Your task to perform on an android device: turn off location Image 0: 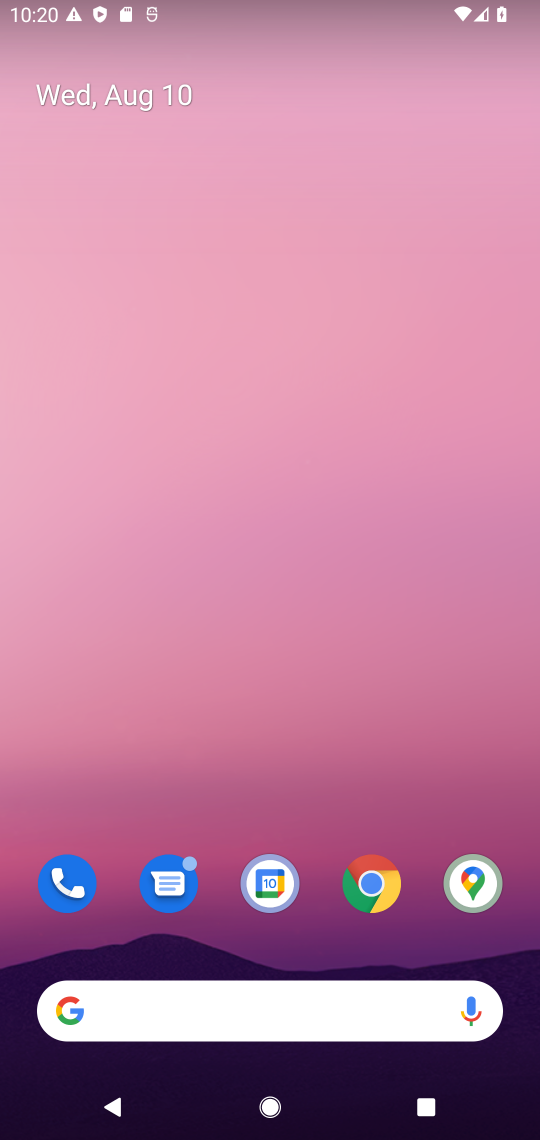
Step 0: drag from (387, 941) to (406, 124)
Your task to perform on an android device: turn off location Image 1: 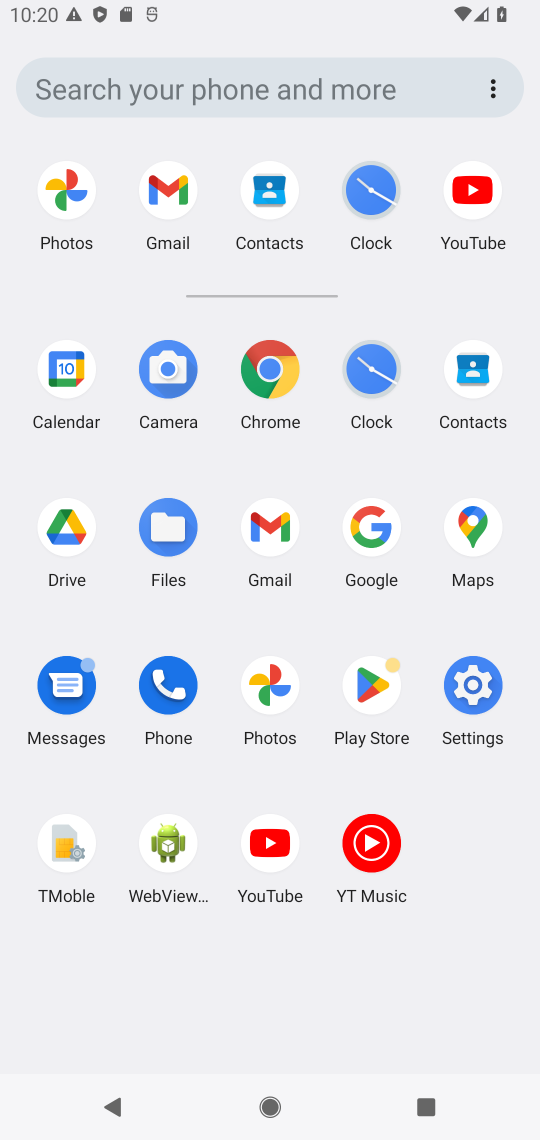
Step 1: click (467, 680)
Your task to perform on an android device: turn off location Image 2: 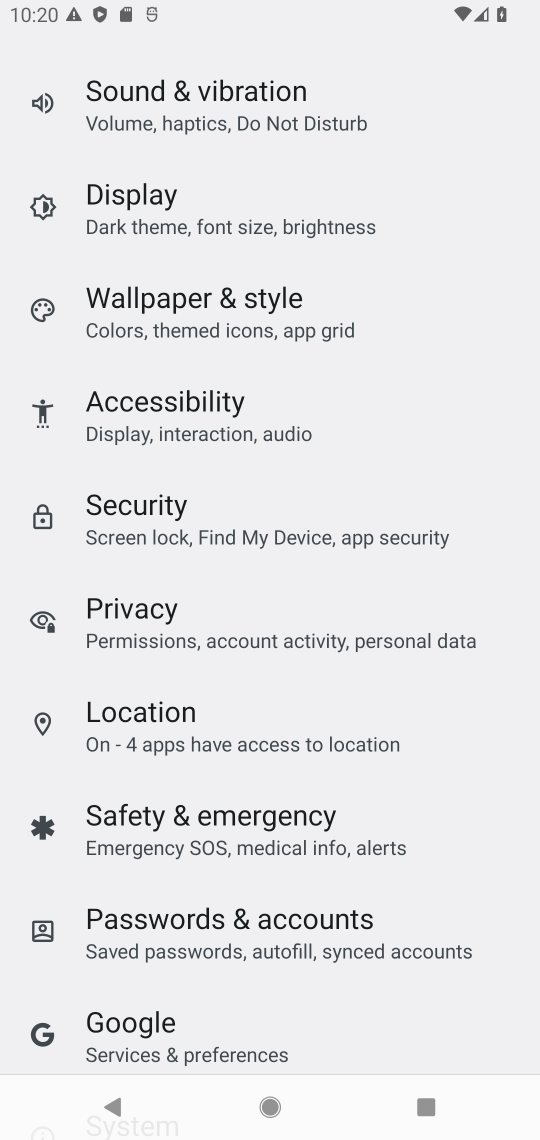
Step 2: drag from (275, 944) to (279, 365)
Your task to perform on an android device: turn off location Image 3: 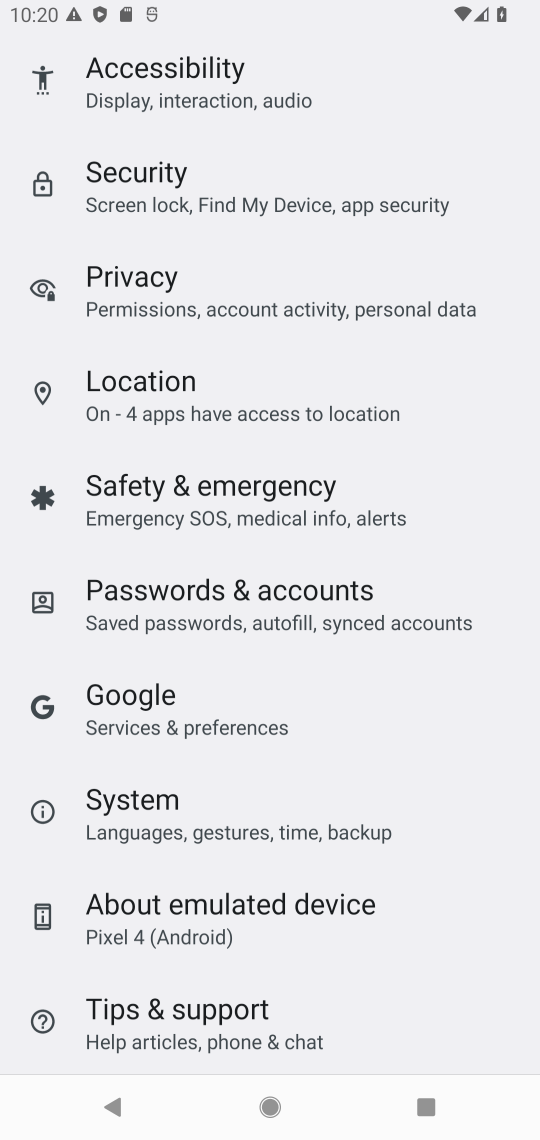
Step 3: click (86, 409)
Your task to perform on an android device: turn off location Image 4: 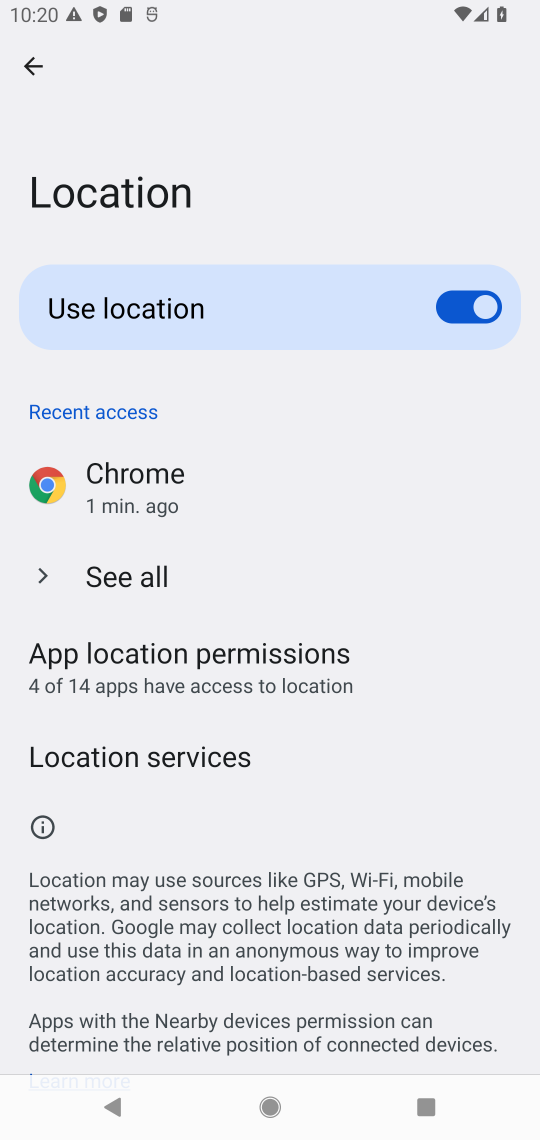
Step 4: click (291, 295)
Your task to perform on an android device: turn off location Image 5: 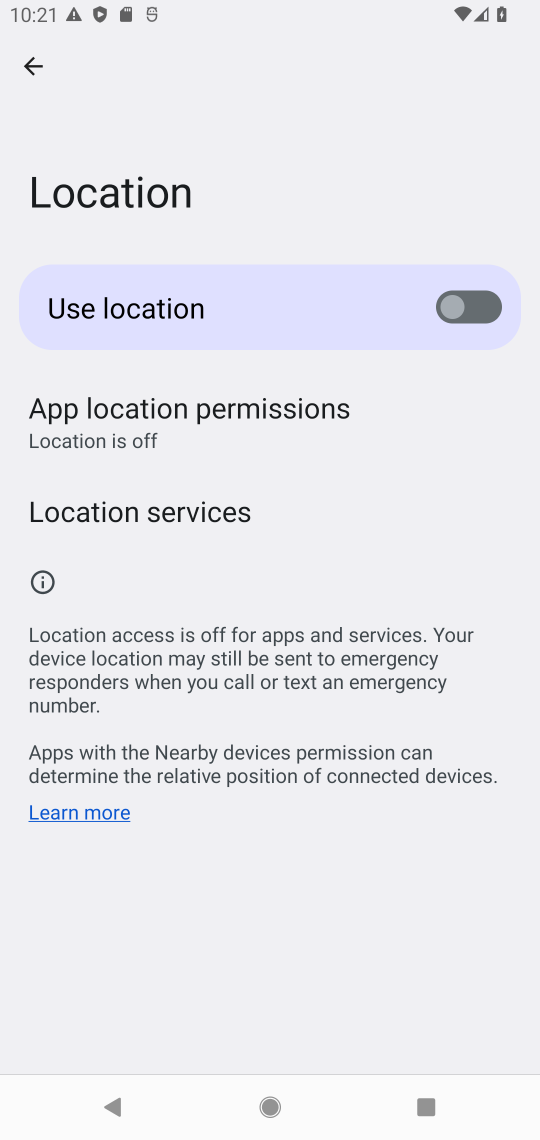
Step 5: task complete